Your task to perform on an android device: change the upload size in google photos Image 0: 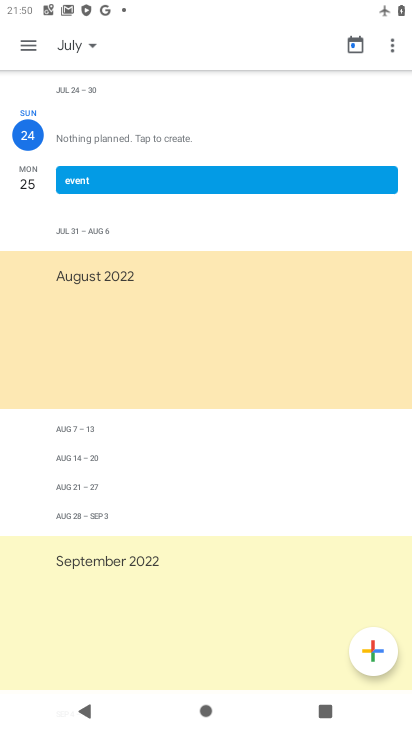
Step 0: press home button
Your task to perform on an android device: change the upload size in google photos Image 1: 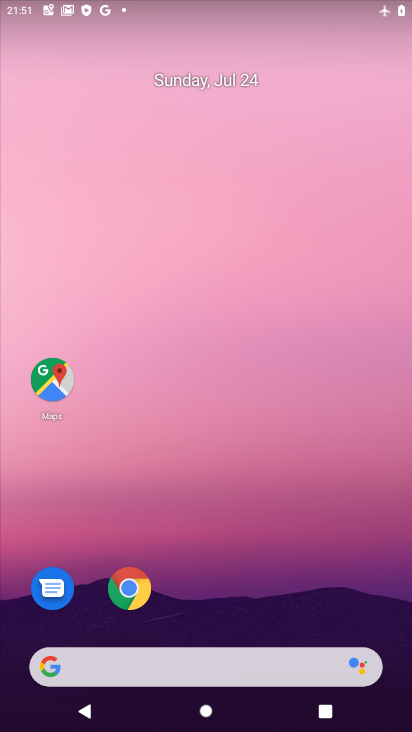
Step 1: drag from (182, 680) to (263, 169)
Your task to perform on an android device: change the upload size in google photos Image 2: 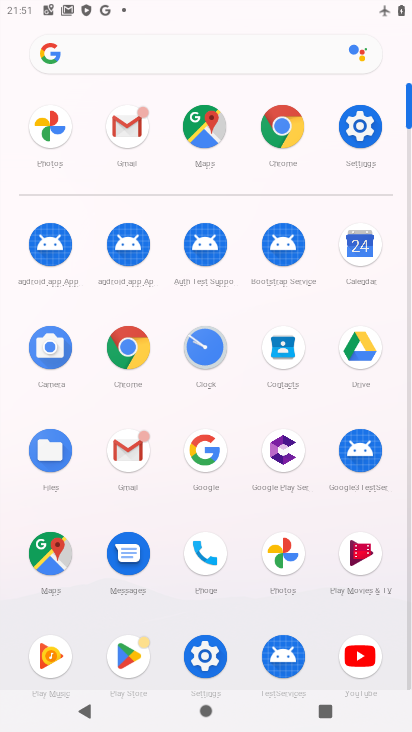
Step 2: click (293, 557)
Your task to perform on an android device: change the upload size in google photos Image 3: 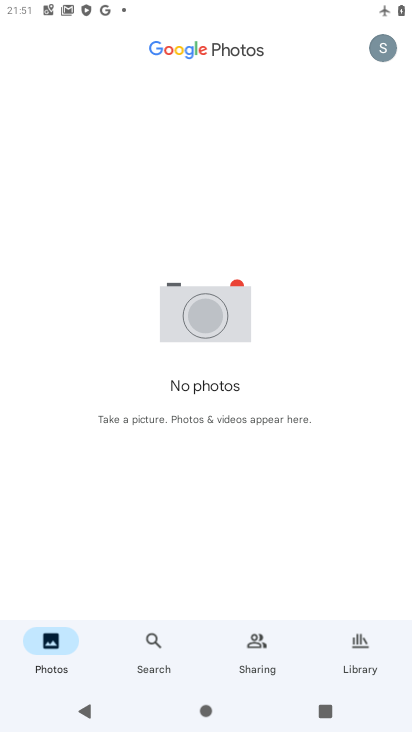
Step 3: click (388, 52)
Your task to perform on an android device: change the upload size in google photos Image 4: 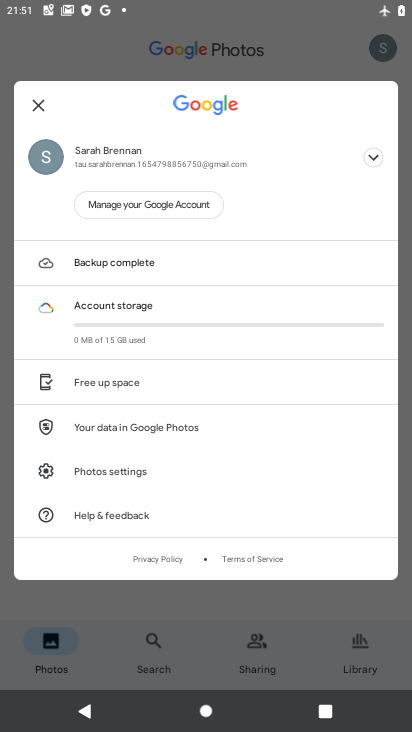
Step 4: click (120, 470)
Your task to perform on an android device: change the upload size in google photos Image 5: 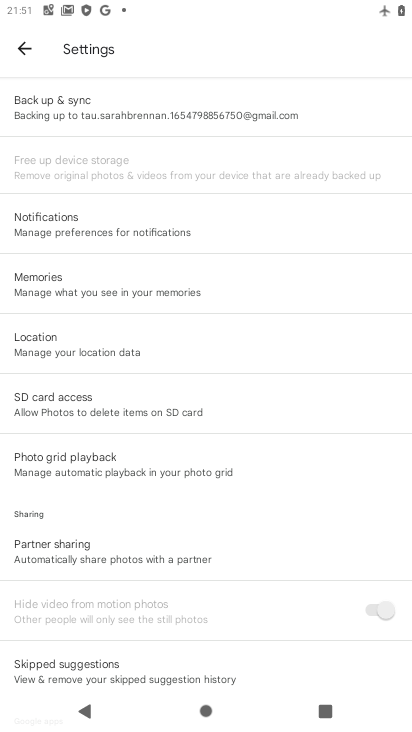
Step 5: click (57, 121)
Your task to perform on an android device: change the upload size in google photos Image 6: 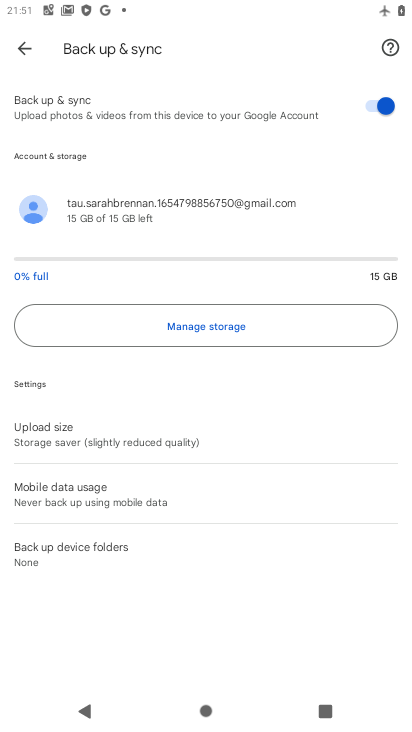
Step 6: click (139, 428)
Your task to perform on an android device: change the upload size in google photos Image 7: 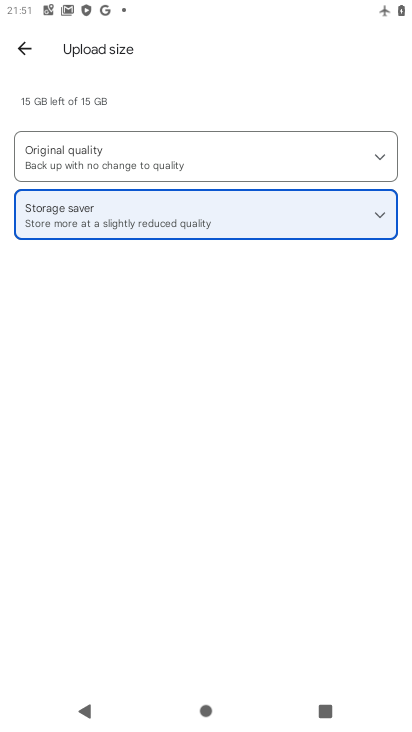
Step 7: click (128, 163)
Your task to perform on an android device: change the upload size in google photos Image 8: 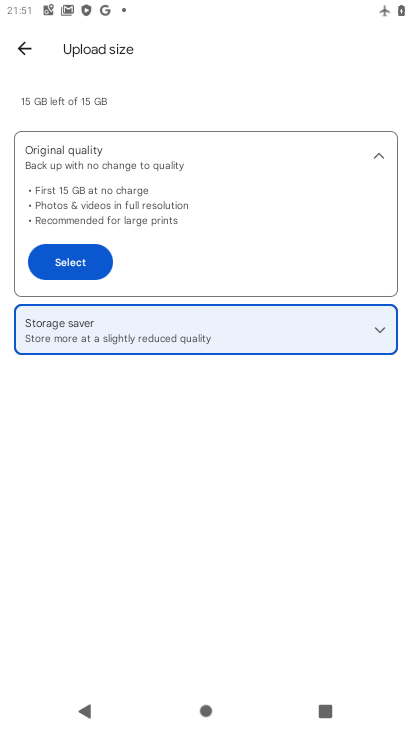
Step 8: click (54, 260)
Your task to perform on an android device: change the upload size in google photos Image 9: 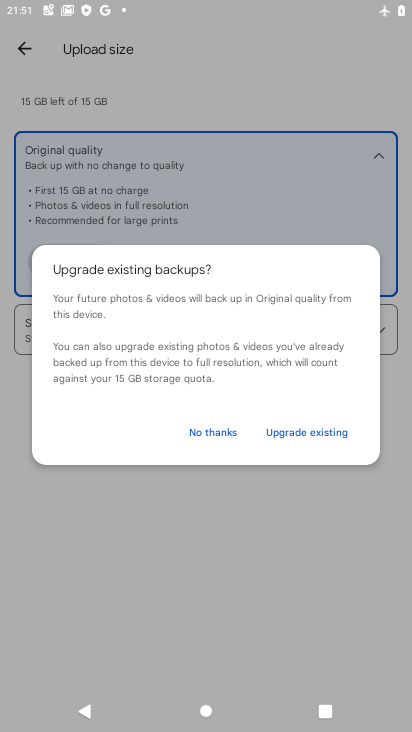
Step 9: click (225, 428)
Your task to perform on an android device: change the upload size in google photos Image 10: 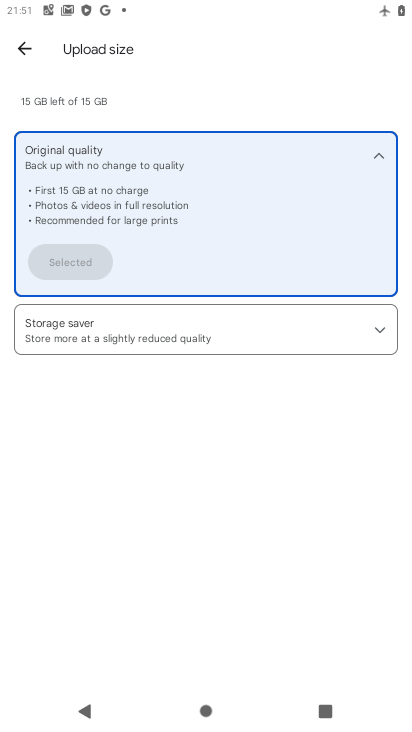
Step 10: task complete